Your task to perform on an android device: turn off location history Image 0: 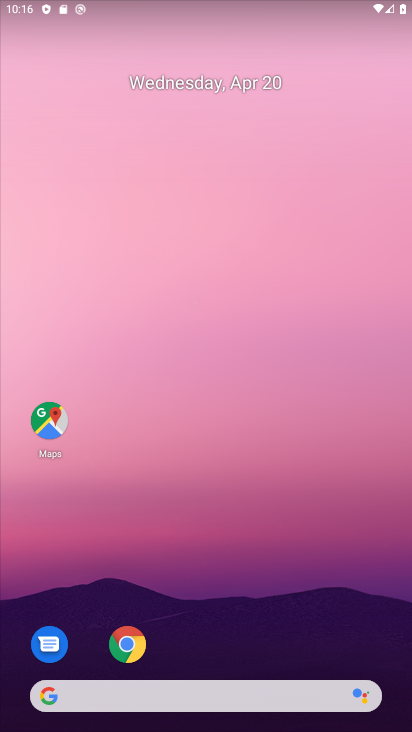
Step 0: drag from (189, 600) to (200, 17)
Your task to perform on an android device: turn off location history Image 1: 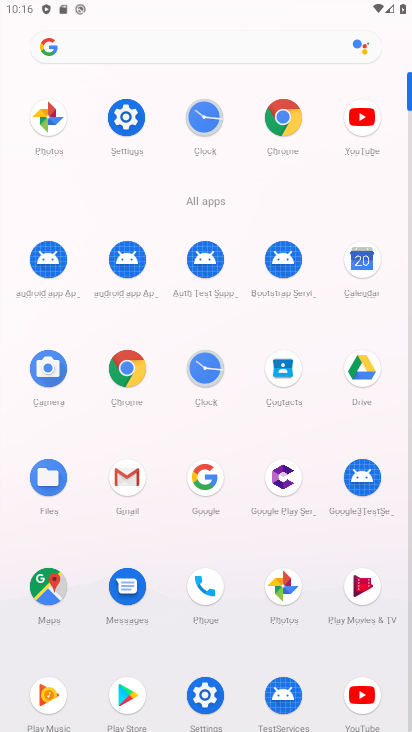
Step 1: click (119, 117)
Your task to perform on an android device: turn off location history Image 2: 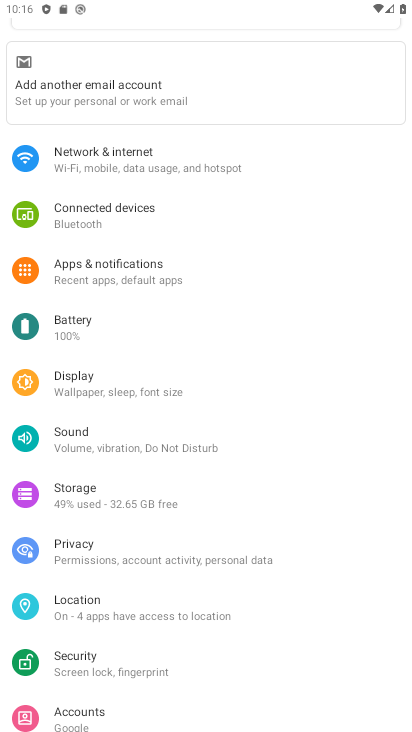
Step 2: click (120, 606)
Your task to perform on an android device: turn off location history Image 3: 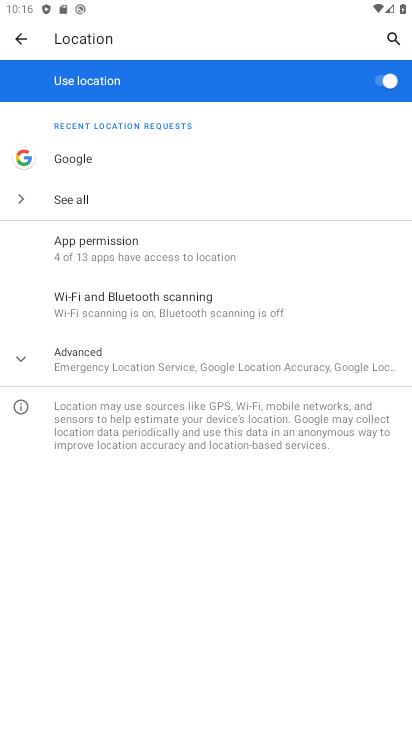
Step 3: click (145, 353)
Your task to perform on an android device: turn off location history Image 4: 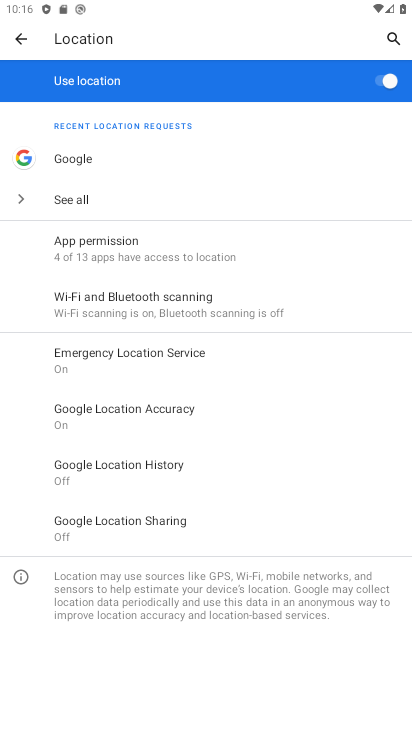
Step 4: click (156, 468)
Your task to perform on an android device: turn off location history Image 5: 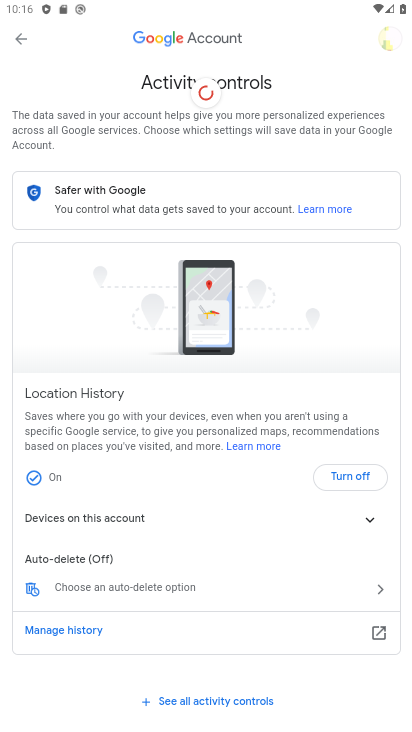
Step 5: task complete